Your task to perform on an android device: Open Maps and search for coffee Image 0: 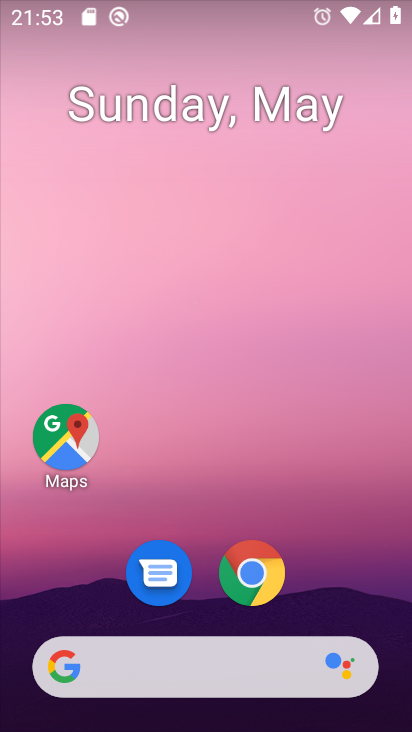
Step 0: click (61, 426)
Your task to perform on an android device: Open Maps and search for coffee Image 1: 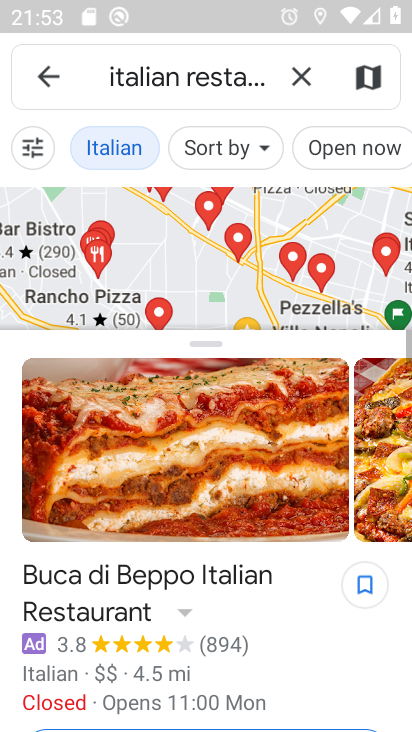
Step 1: click (299, 74)
Your task to perform on an android device: Open Maps and search for coffee Image 2: 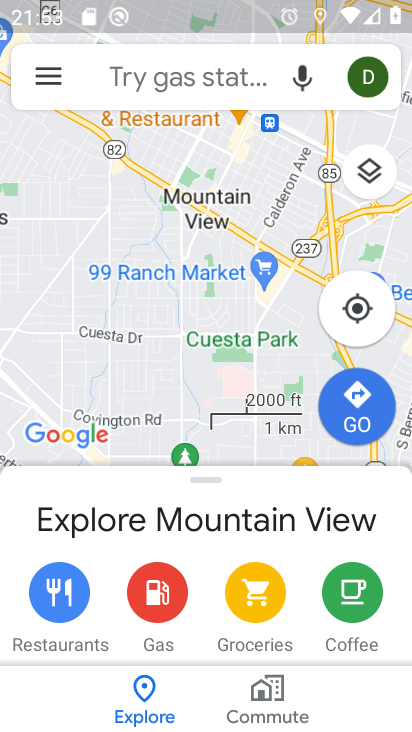
Step 2: click (203, 72)
Your task to perform on an android device: Open Maps and search for coffee Image 3: 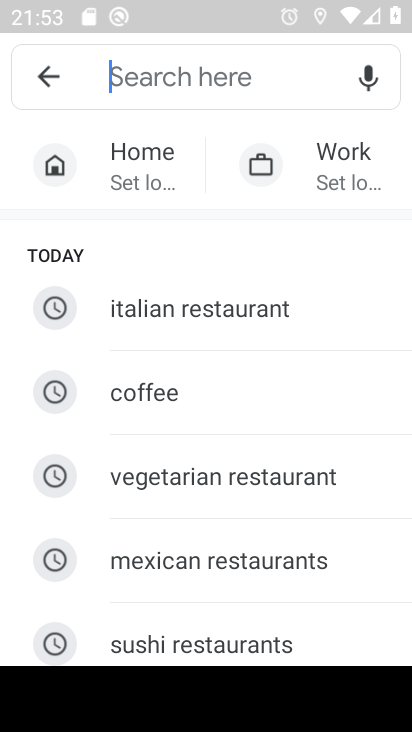
Step 3: click (194, 394)
Your task to perform on an android device: Open Maps and search for coffee Image 4: 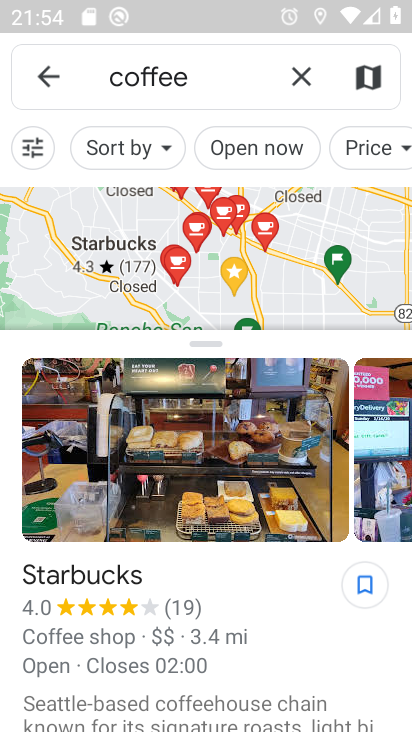
Step 4: task complete